Your task to perform on an android device: check out phone information Image 0: 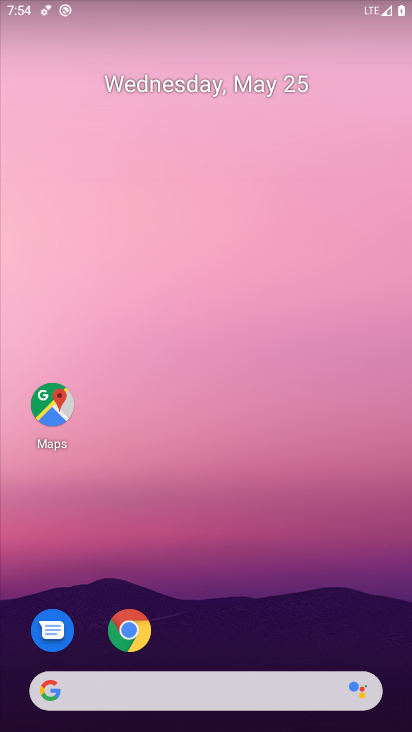
Step 0: drag from (184, 662) to (234, 310)
Your task to perform on an android device: check out phone information Image 1: 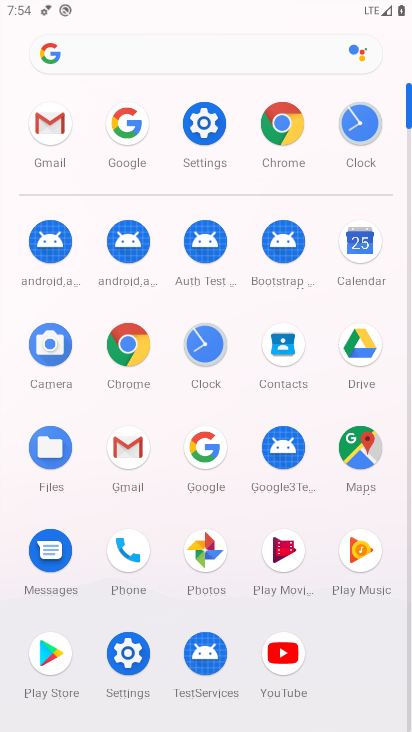
Step 1: click (113, 558)
Your task to perform on an android device: check out phone information Image 2: 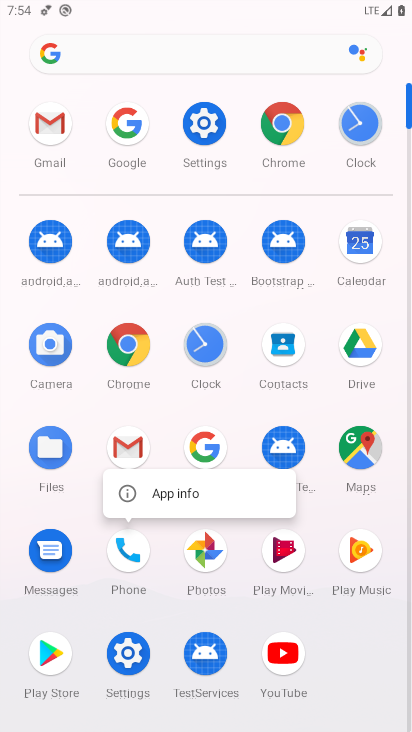
Step 2: click (151, 491)
Your task to perform on an android device: check out phone information Image 3: 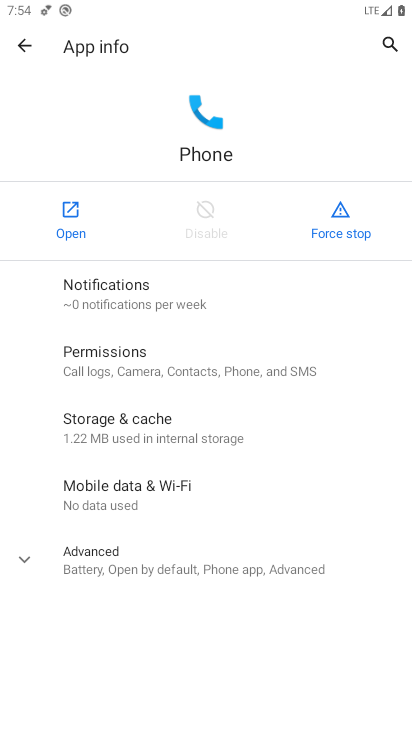
Step 3: click (96, 554)
Your task to perform on an android device: check out phone information Image 4: 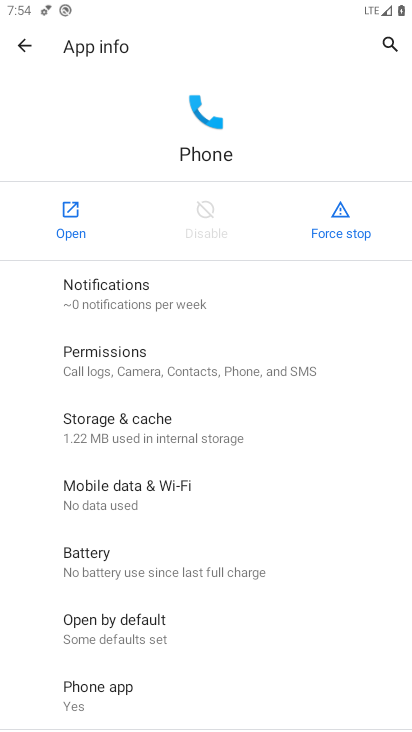
Step 4: task complete